Your task to perform on an android device: Open internet settings Image 0: 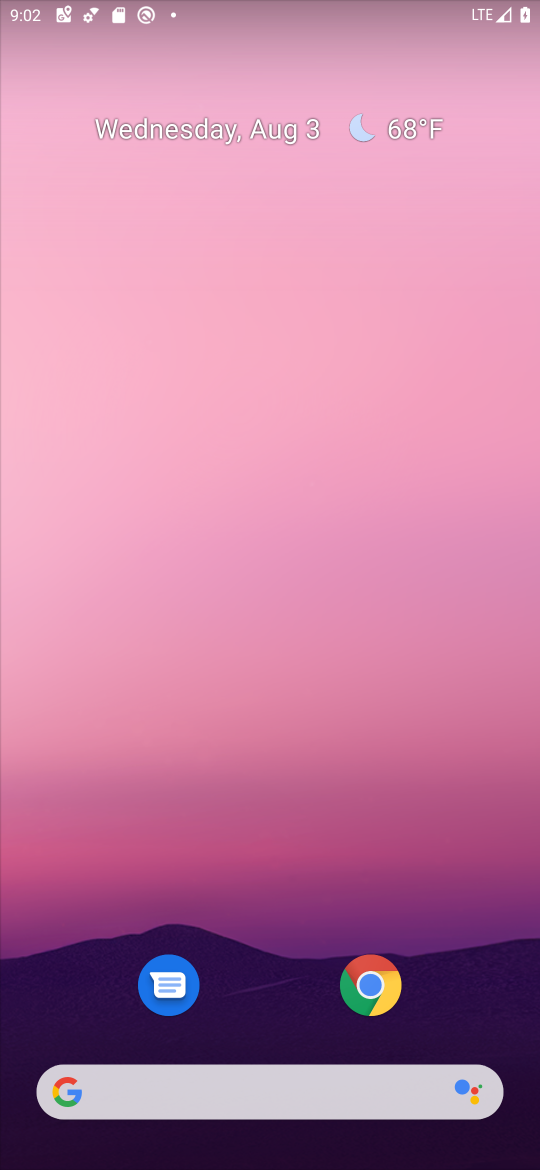
Step 0: click (274, 133)
Your task to perform on an android device: Open internet settings Image 1: 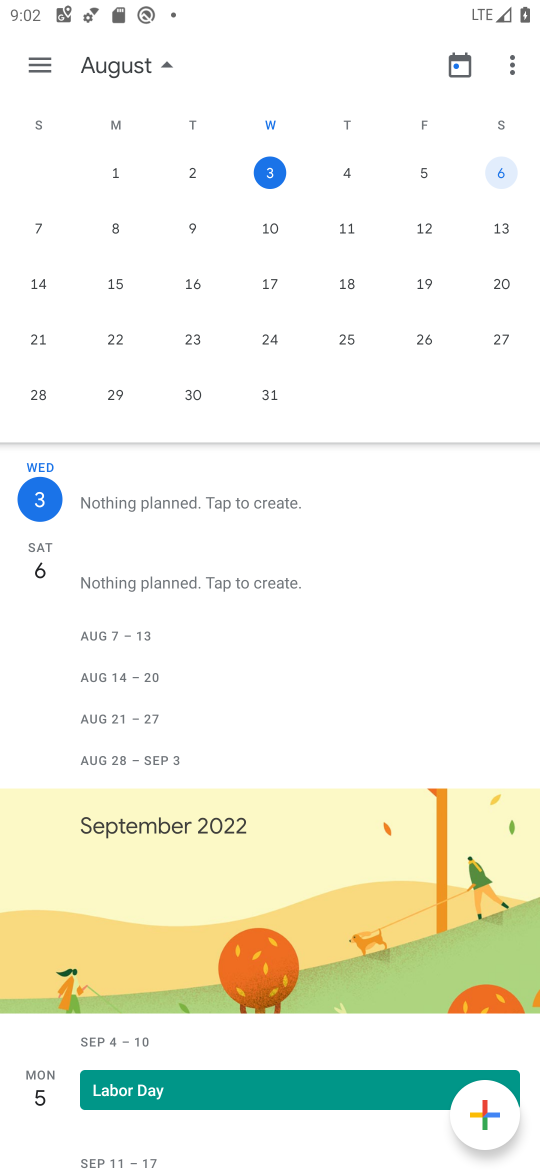
Step 1: press back button
Your task to perform on an android device: Open internet settings Image 2: 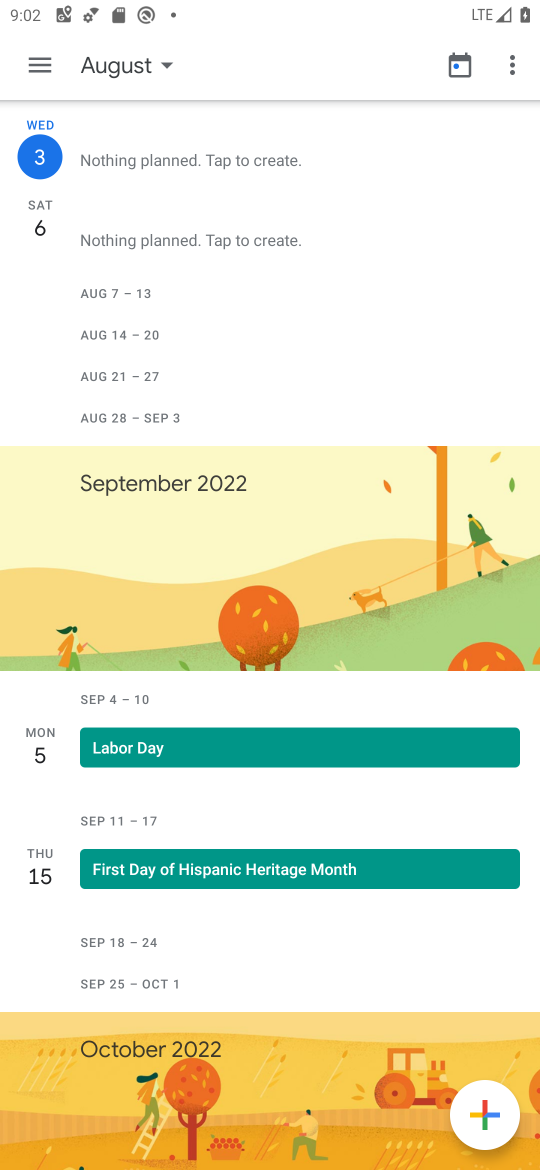
Step 2: press home button
Your task to perform on an android device: Open internet settings Image 3: 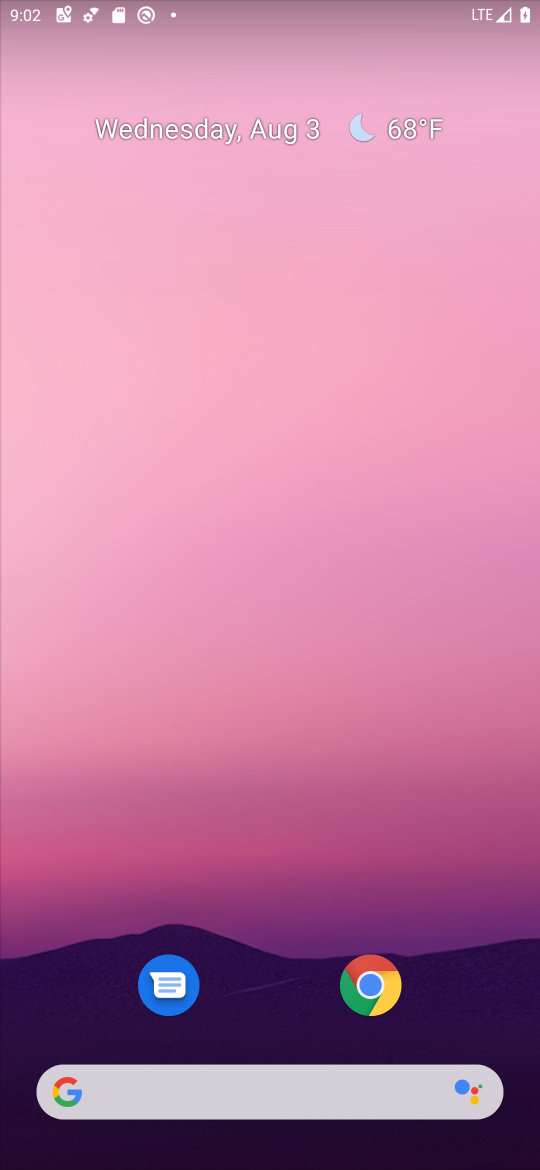
Step 3: drag from (283, 910) to (271, 183)
Your task to perform on an android device: Open internet settings Image 4: 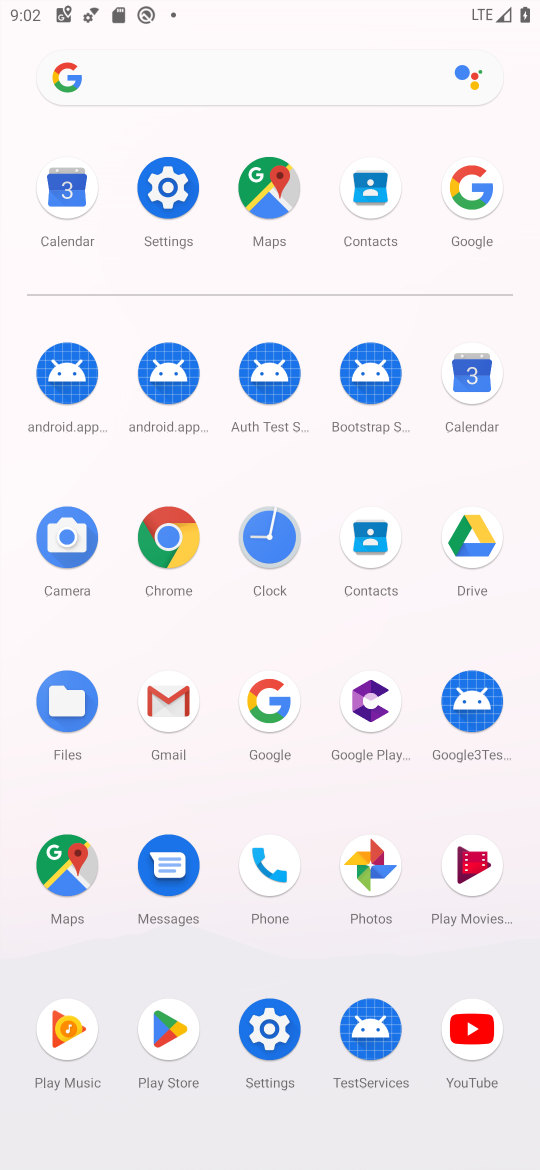
Step 4: click (184, 194)
Your task to perform on an android device: Open internet settings Image 5: 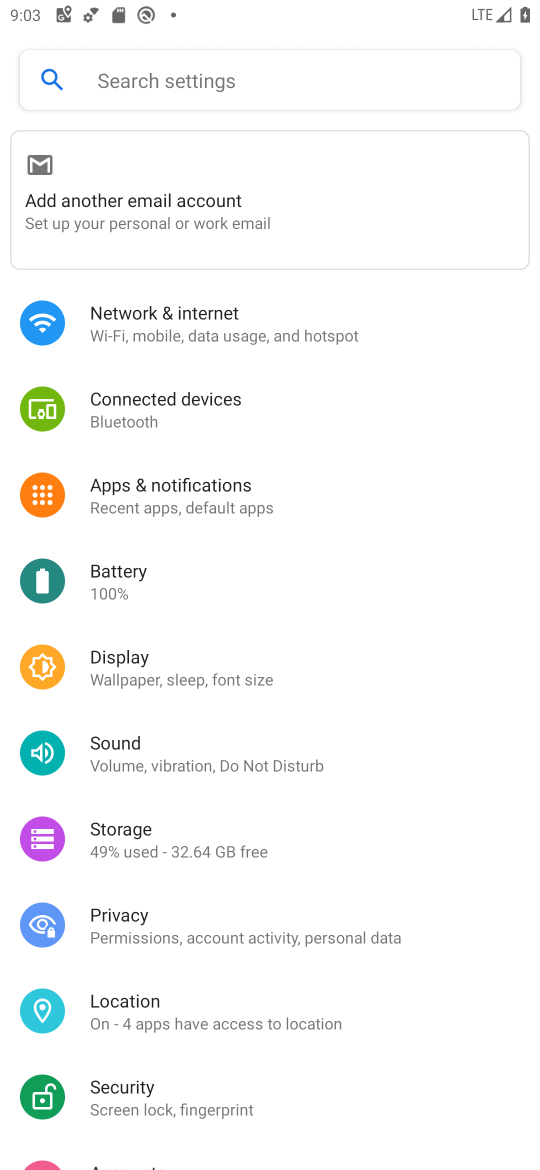
Step 5: click (209, 338)
Your task to perform on an android device: Open internet settings Image 6: 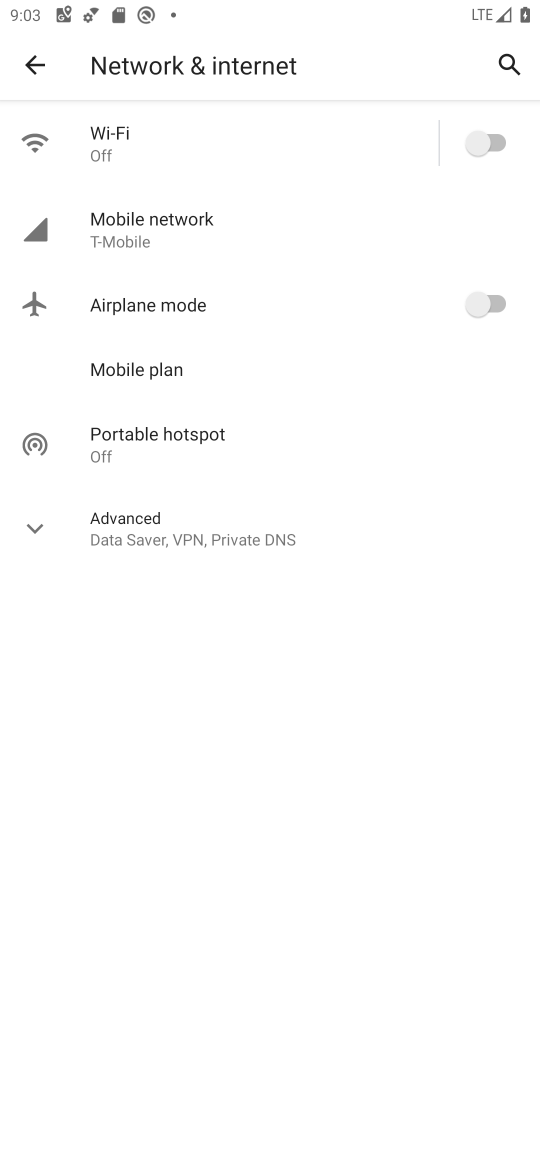
Step 6: task complete